Your task to perform on an android device: manage bookmarks in the chrome app Image 0: 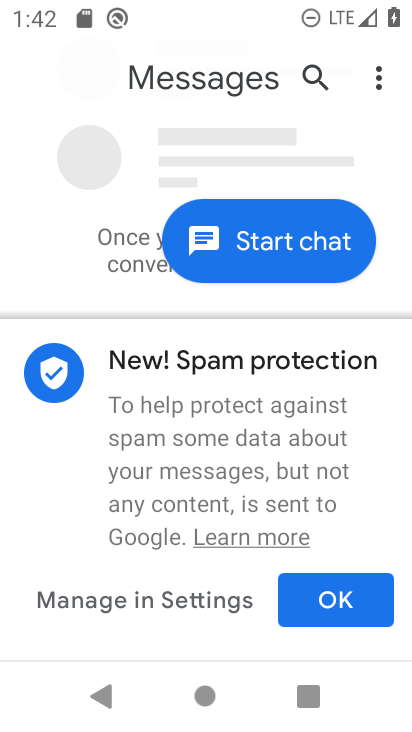
Step 0: press home button
Your task to perform on an android device: manage bookmarks in the chrome app Image 1: 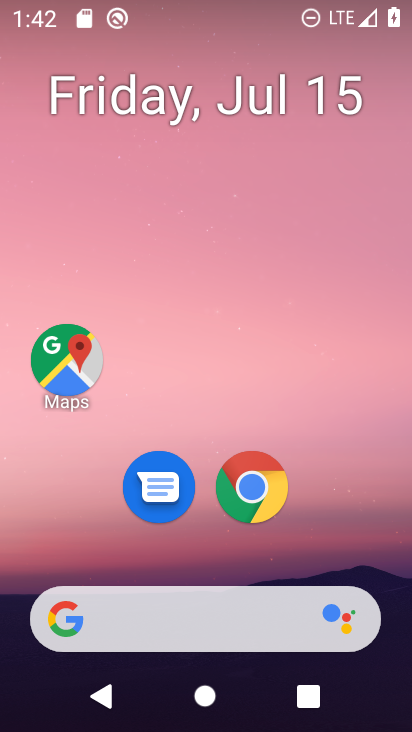
Step 1: drag from (300, 516) to (321, 254)
Your task to perform on an android device: manage bookmarks in the chrome app Image 2: 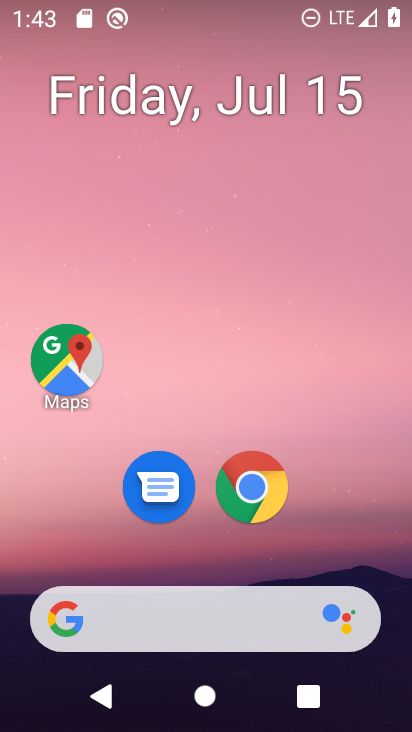
Step 2: click (242, 512)
Your task to perform on an android device: manage bookmarks in the chrome app Image 3: 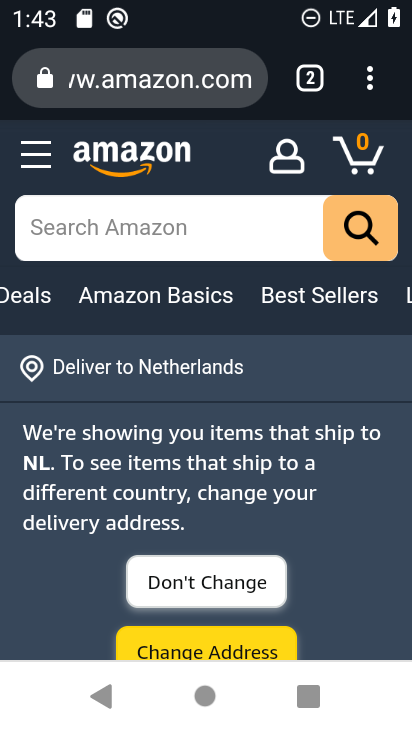
Step 3: click (363, 88)
Your task to perform on an android device: manage bookmarks in the chrome app Image 4: 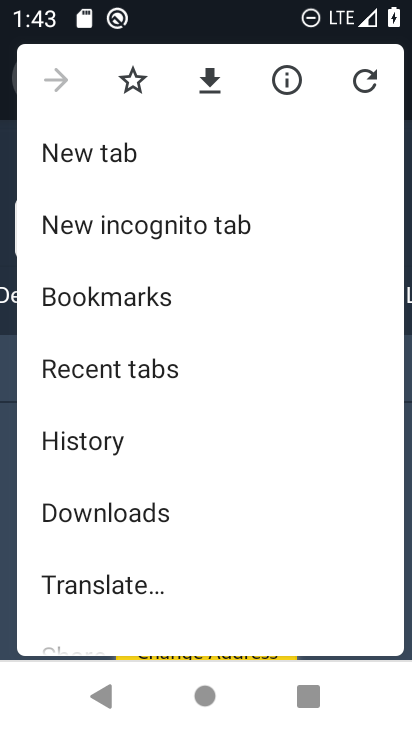
Step 4: click (111, 286)
Your task to perform on an android device: manage bookmarks in the chrome app Image 5: 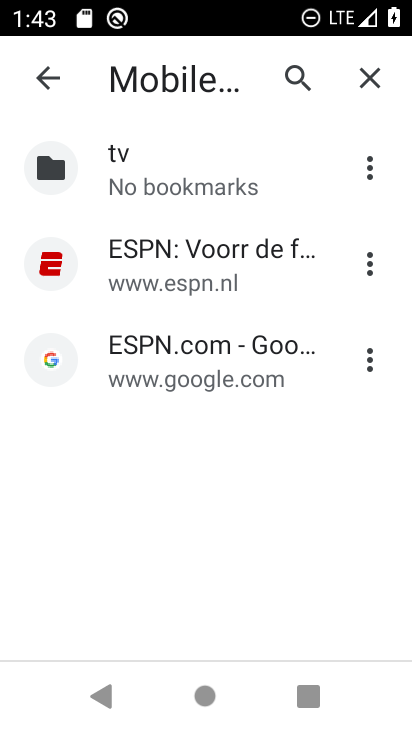
Step 5: task complete